Your task to perform on an android device: add a label to a message in the gmail app Image 0: 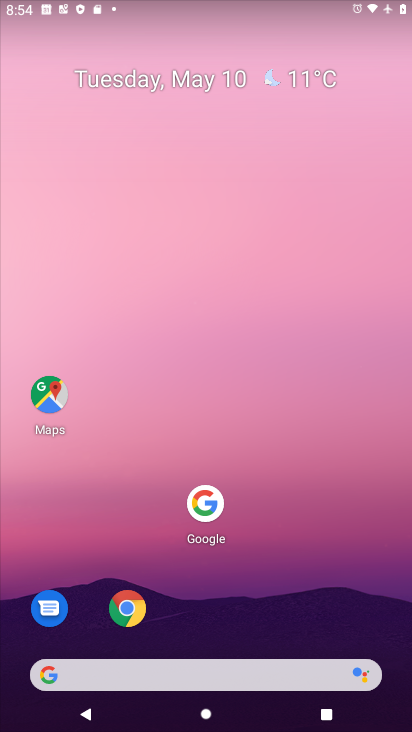
Step 0: drag from (194, 673) to (259, 146)
Your task to perform on an android device: add a label to a message in the gmail app Image 1: 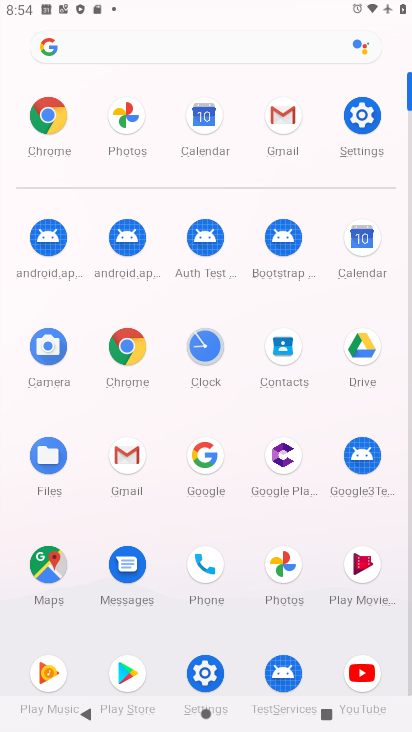
Step 1: click (281, 115)
Your task to perform on an android device: add a label to a message in the gmail app Image 2: 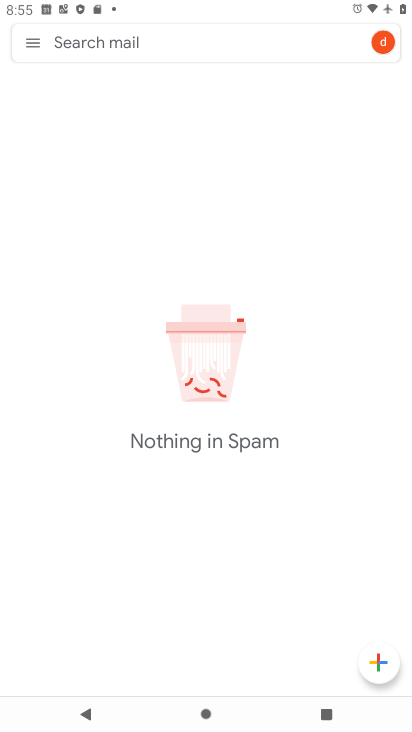
Step 2: task complete